Your task to perform on an android device: Open the stopwatch Image 0: 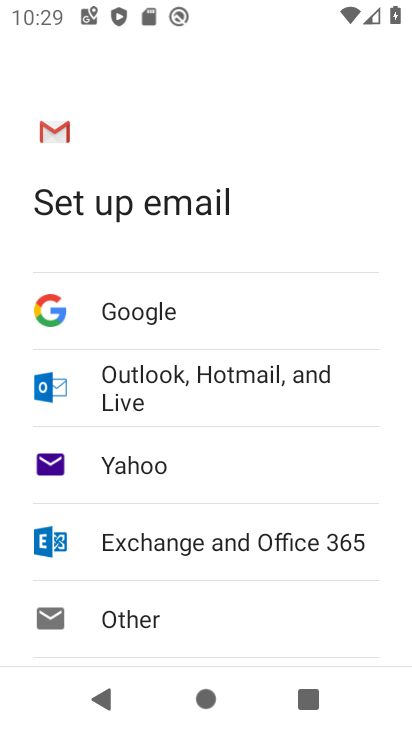
Step 0: press home button
Your task to perform on an android device: Open the stopwatch Image 1: 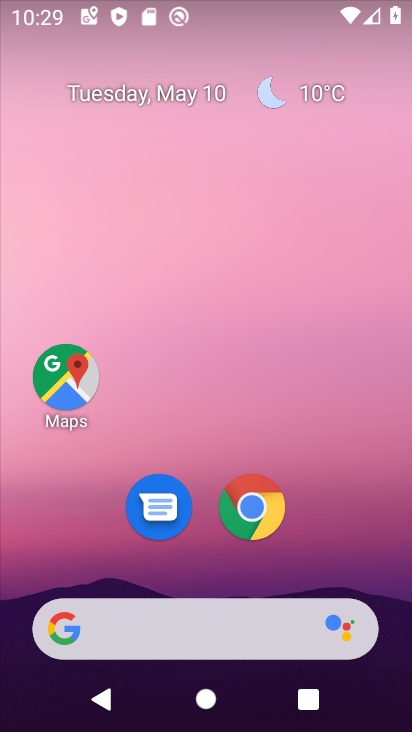
Step 1: drag from (292, 545) to (301, 216)
Your task to perform on an android device: Open the stopwatch Image 2: 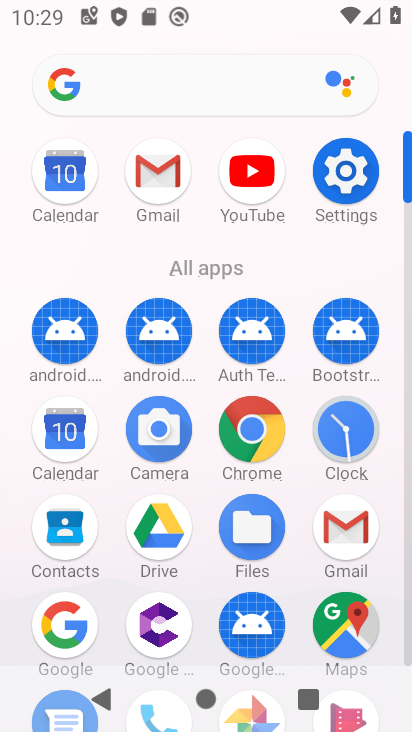
Step 2: click (347, 425)
Your task to perform on an android device: Open the stopwatch Image 3: 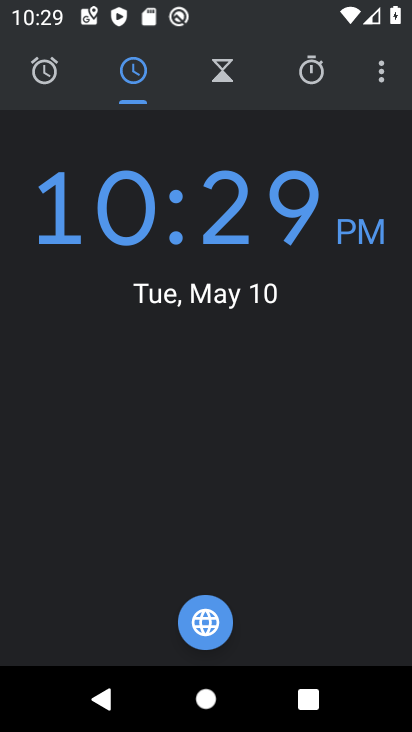
Step 3: click (306, 98)
Your task to perform on an android device: Open the stopwatch Image 4: 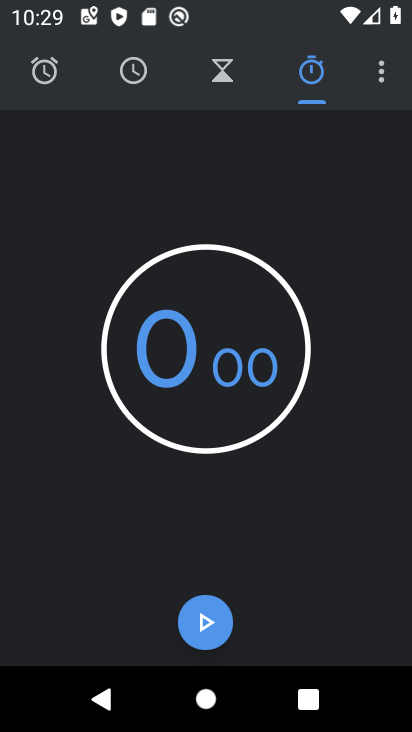
Step 4: task complete